Your task to perform on an android device: Open ESPN.com Image 0: 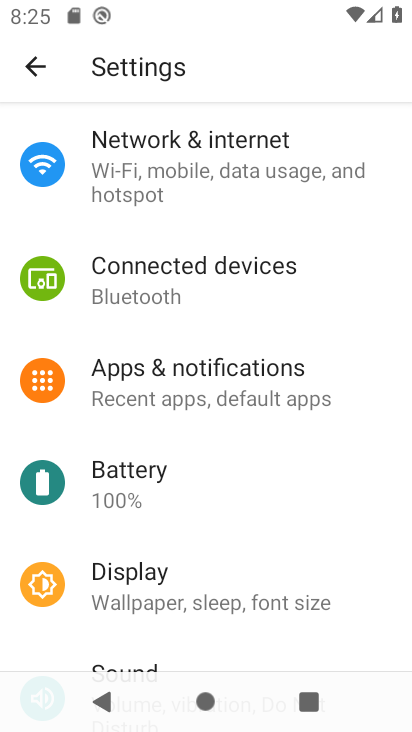
Step 0: press home button
Your task to perform on an android device: Open ESPN.com Image 1: 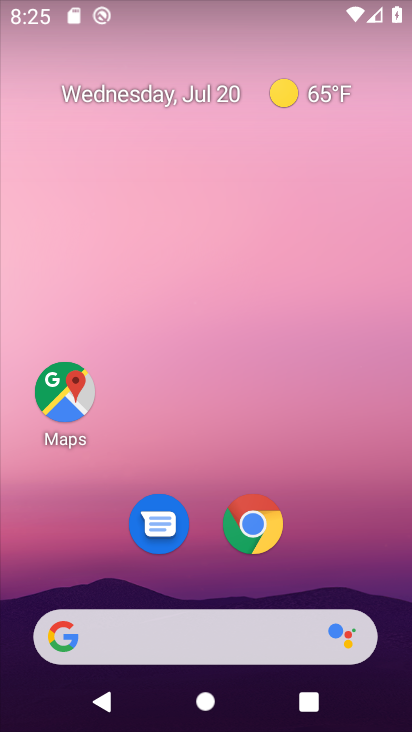
Step 1: click (243, 649)
Your task to perform on an android device: Open ESPN.com Image 2: 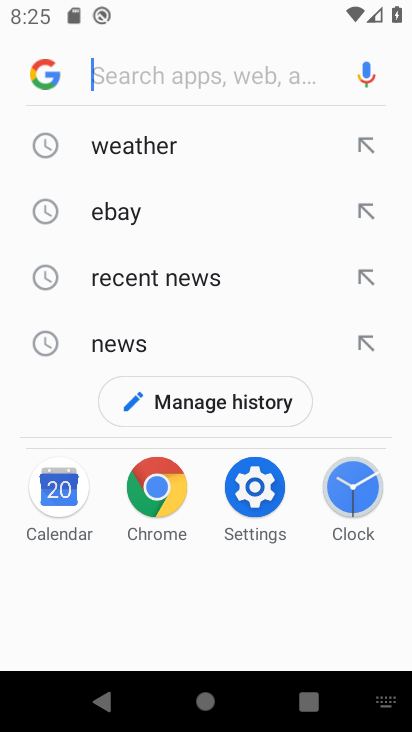
Step 2: type "espn.com"
Your task to perform on an android device: Open ESPN.com Image 3: 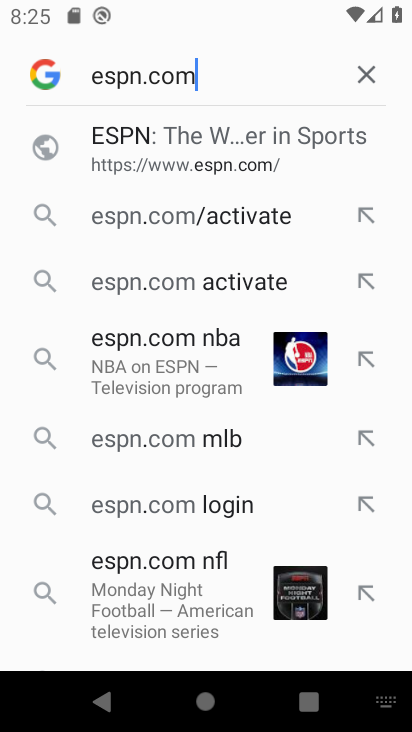
Step 3: click (177, 214)
Your task to perform on an android device: Open ESPN.com Image 4: 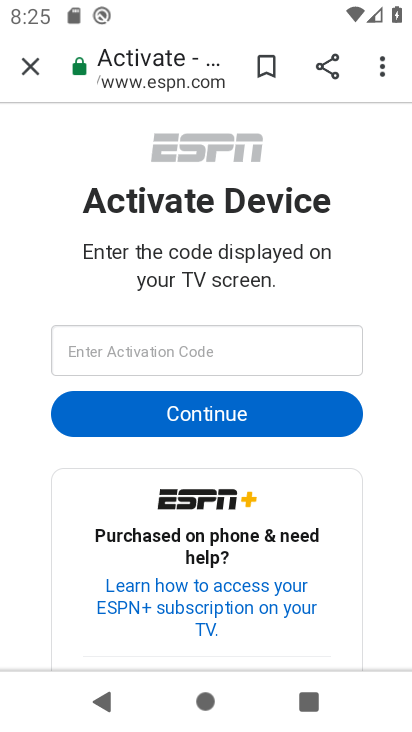
Step 4: click (34, 62)
Your task to perform on an android device: Open ESPN.com Image 5: 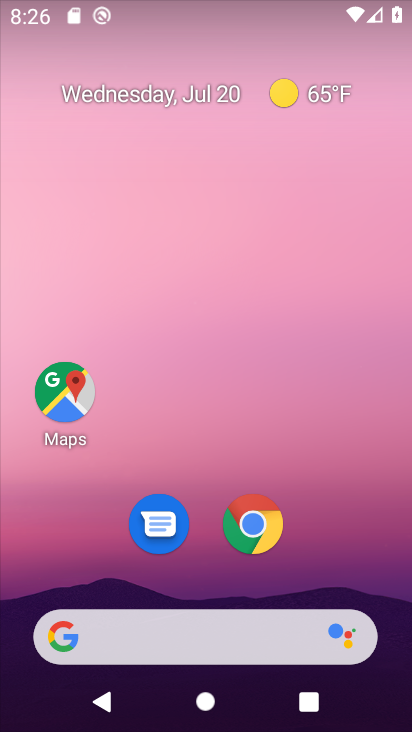
Step 5: click (193, 634)
Your task to perform on an android device: Open ESPN.com Image 6: 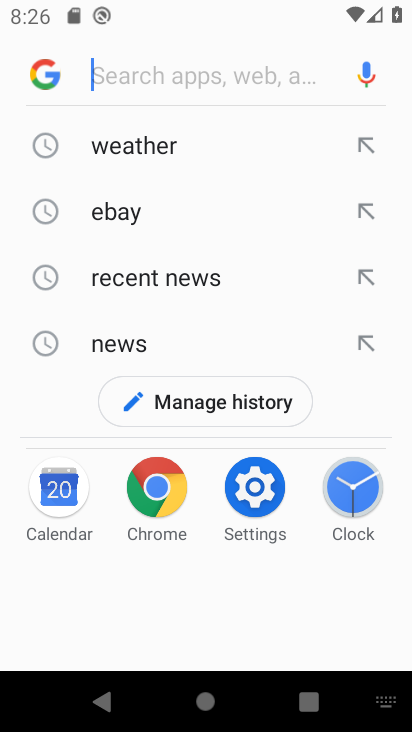
Step 6: type "espn.com"
Your task to perform on an android device: Open ESPN.com Image 7: 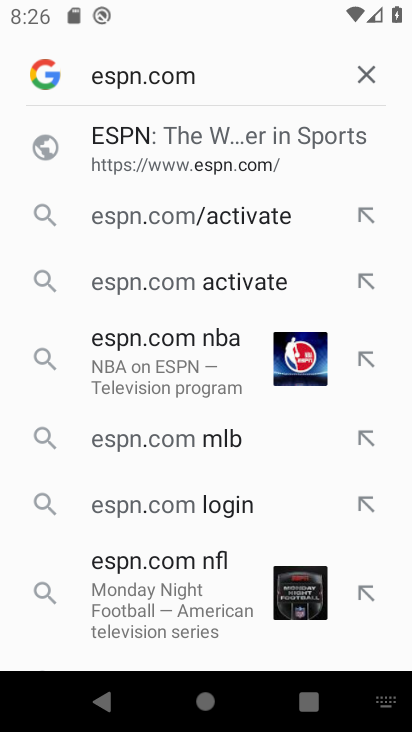
Step 7: click (206, 143)
Your task to perform on an android device: Open ESPN.com Image 8: 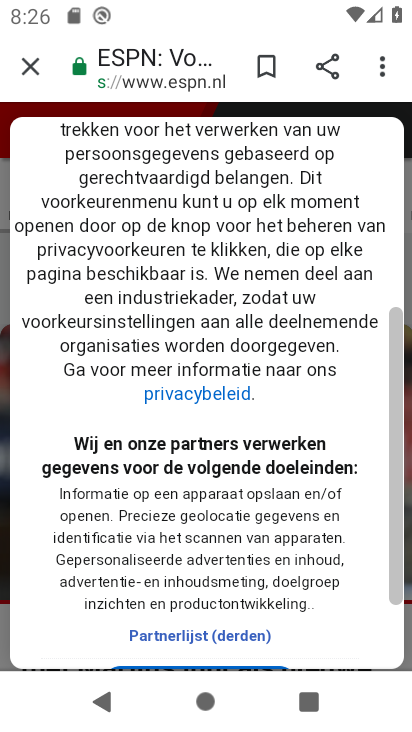
Step 8: task complete